Your task to perform on an android device: Open settings Image 0: 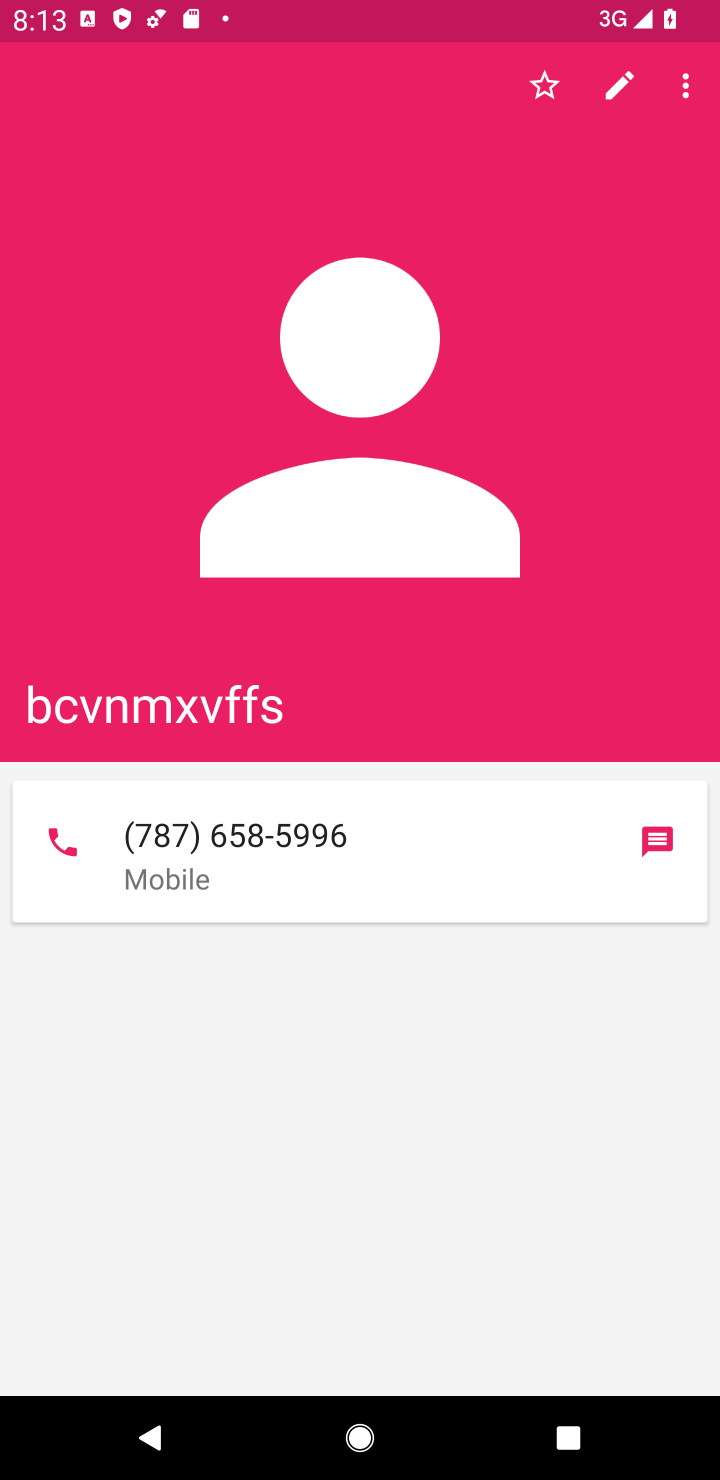
Step 0: press home button
Your task to perform on an android device: Open settings Image 1: 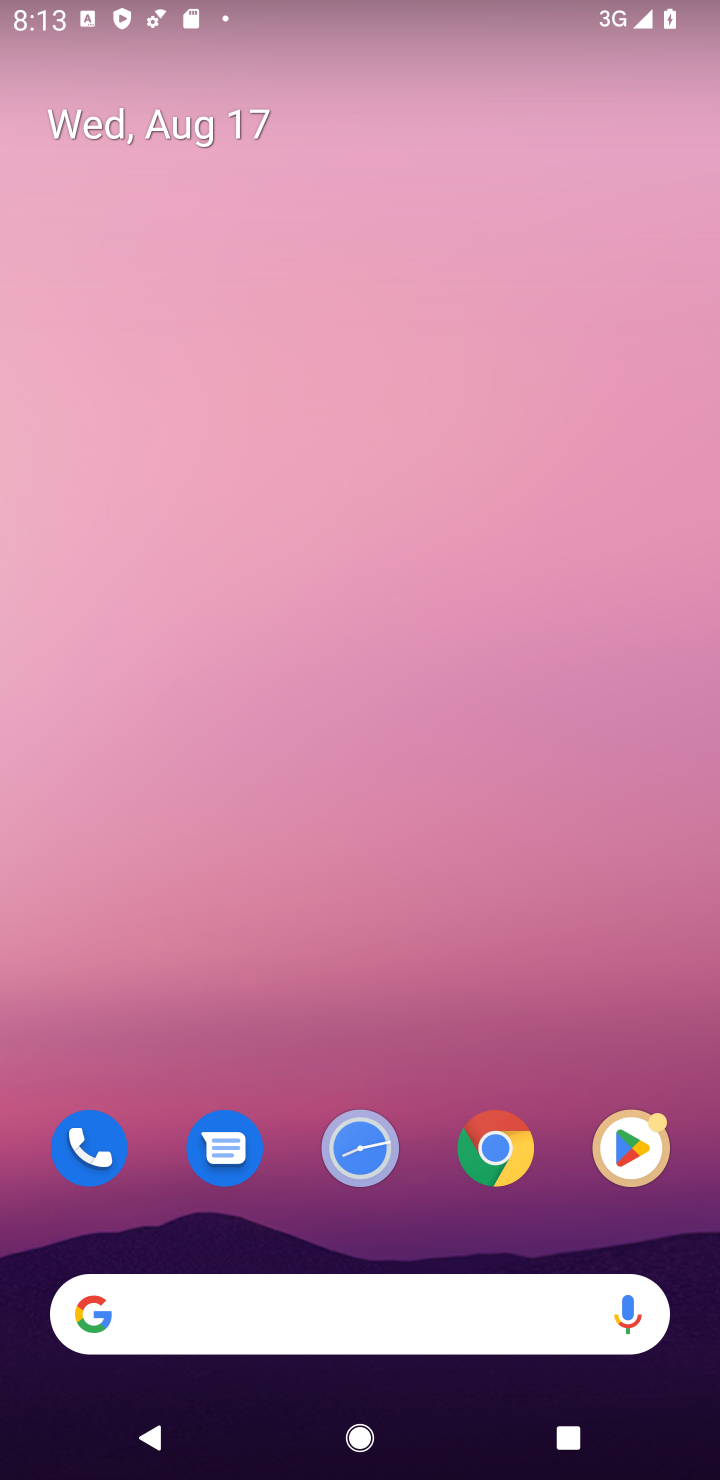
Step 1: drag from (557, 1236) to (557, 209)
Your task to perform on an android device: Open settings Image 2: 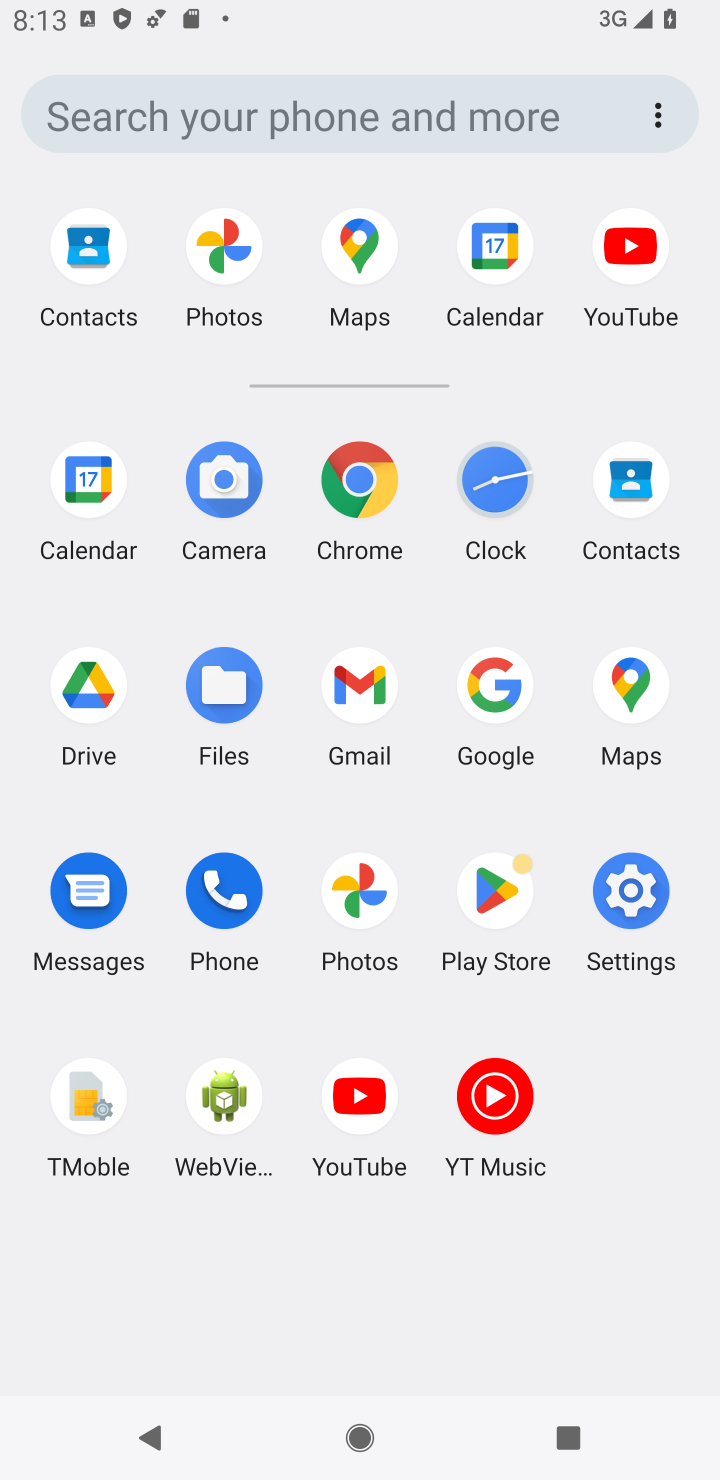
Step 2: click (633, 894)
Your task to perform on an android device: Open settings Image 3: 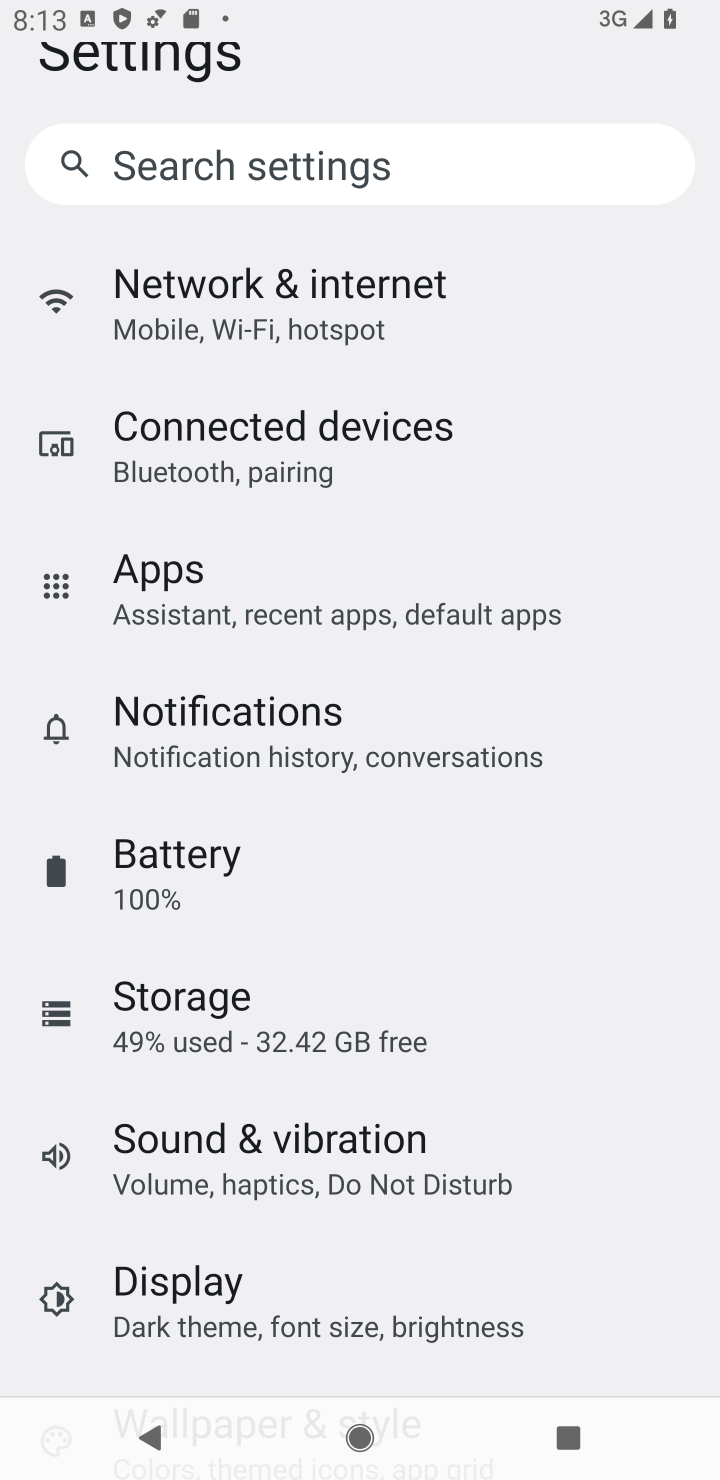
Step 3: task complete